Your task to perform on an android device: What's the weather today? Image 0: 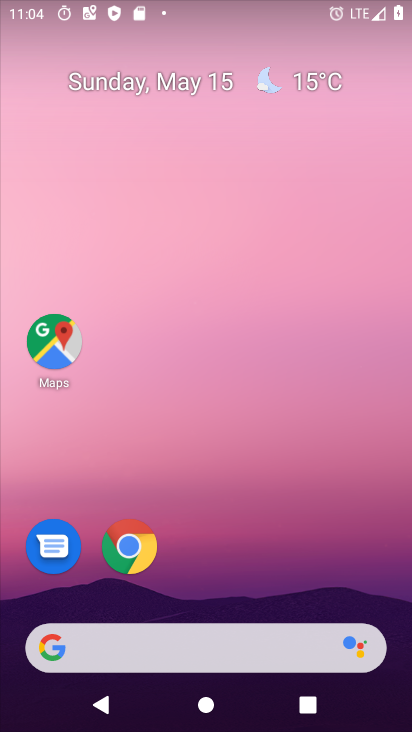
Step 0: drag from (256, 666) to (130, 11)
Your task to perform on an android device: What's the weather today? Image 1: 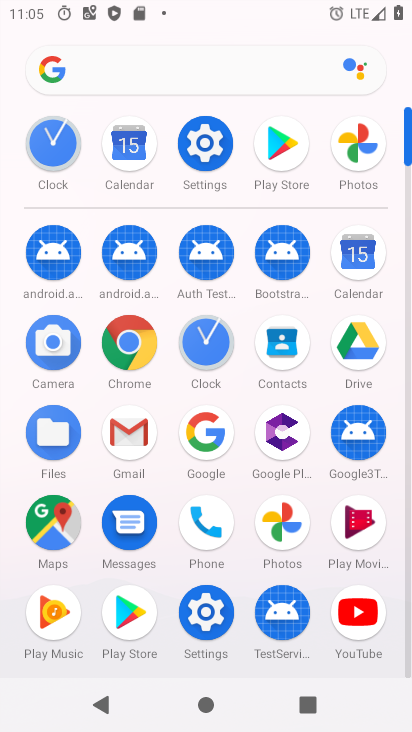
Step 1: press back button
Your task to perform on an android device: What's the weather today? Image 2: 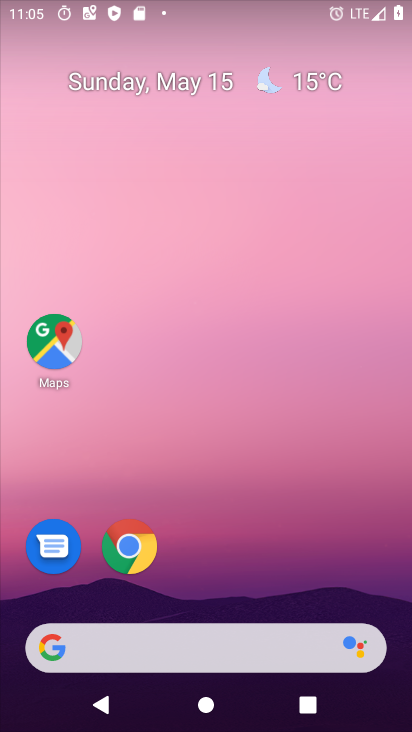
Step 2: drag from (16, 175) to (322, 360)
Your task to perform on an android device: What's the weather today? Image 3: 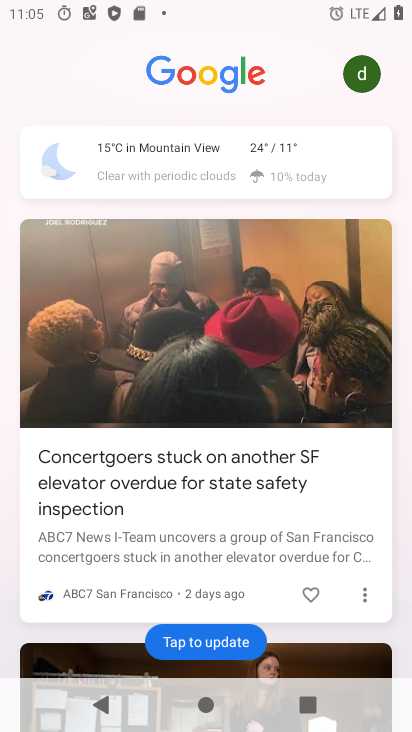
Step 3: click (182, 160)
Your task to perform on an android device: What's the weather today? Image 4: 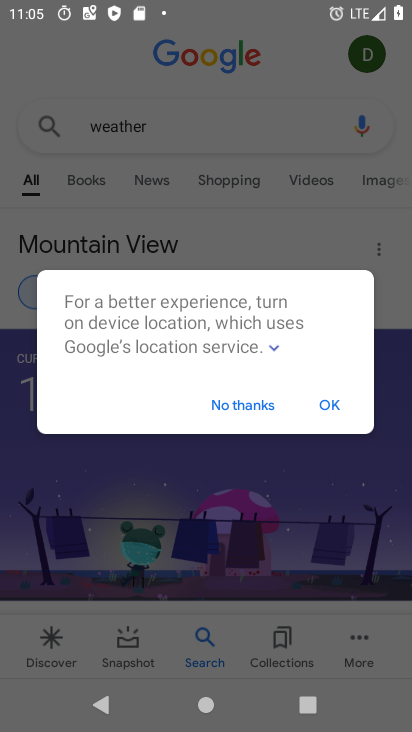
Step 4: drag from (197, 511) to (186, 233)
Your task to perform on an android device: What's the weather today? Image 5: 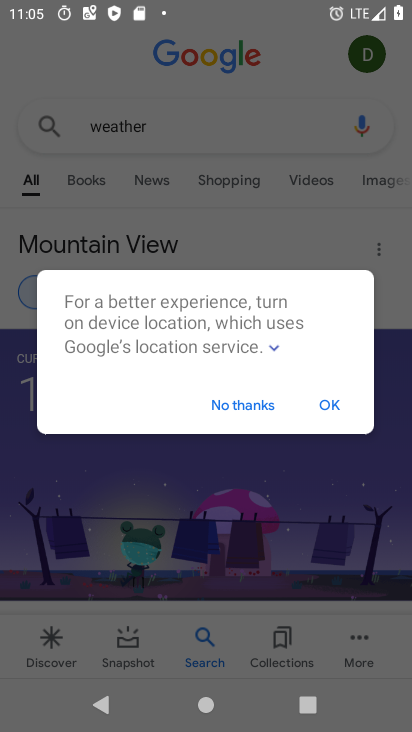
Step 5: click (246, 395)
Your task to perform on an android device: What's the weather today? Image 6: 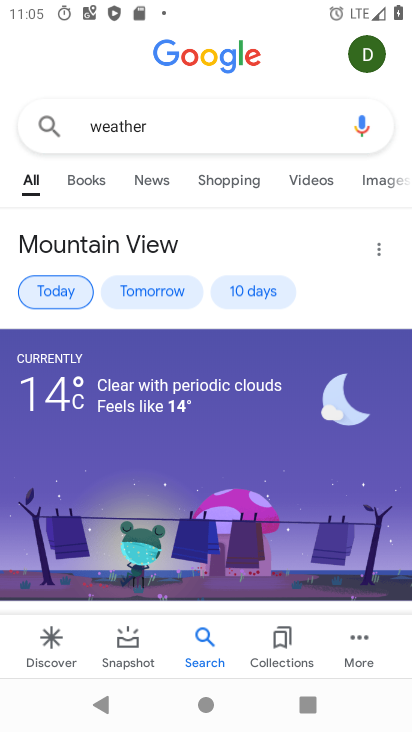
Step 6: click (150, 289)
Your task to perform on an android device: What's the weather today? Image 7: 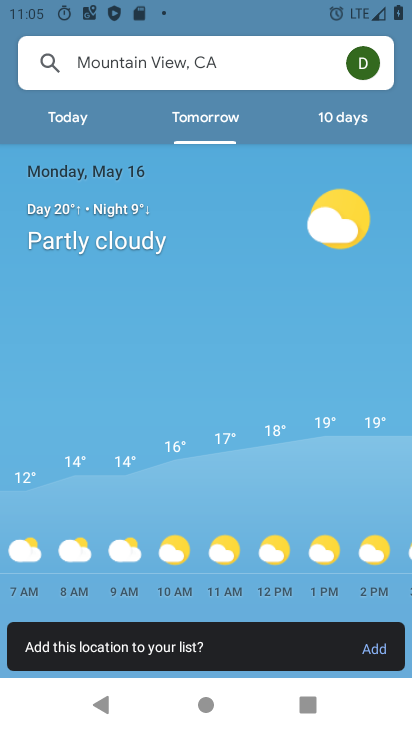
Step 7: task complete